Your task to perform on an android device: Search for seafood restaurants on Google Maps Image 0: 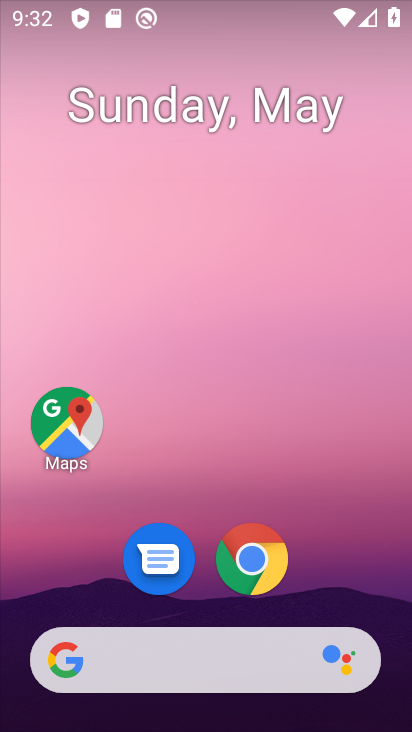
Step 0: click (60, 430)
Your task to perform on an android device: Search for seafood restaurants on Google Maps Image 1: 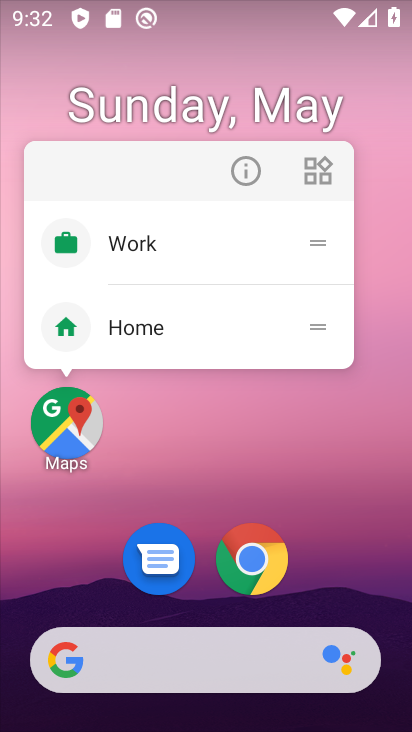
Step 1: drag from (358, 610) to (375, 88)
Your task to perform on an android device: Search for seafood restaurants on Google Maps Image 2: 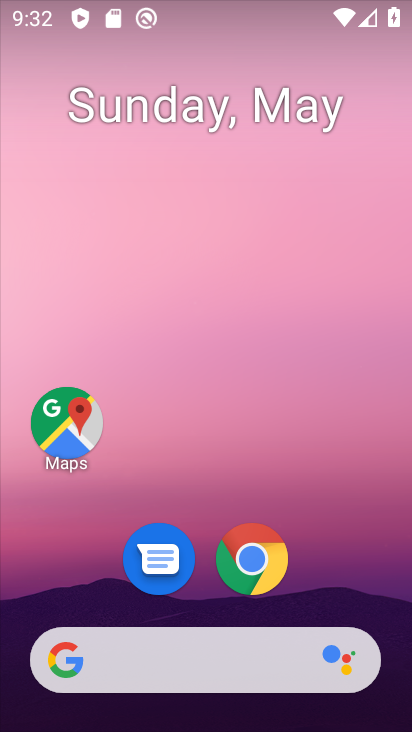
Step 2: drag from (333, 578) to (342, 122)
Your task to perform on an android device: Search for seafood restaurants on Google Maps Image 3: 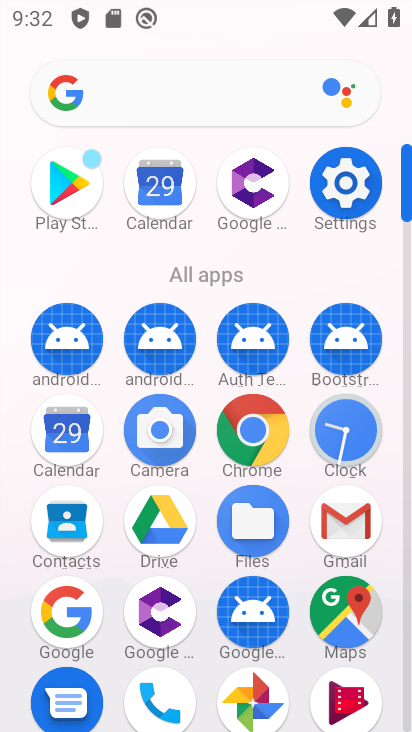
Step 3: click (363, 613)
Your task to perform on an android device: Search for seafood restaurants on Google Maps Image 4: 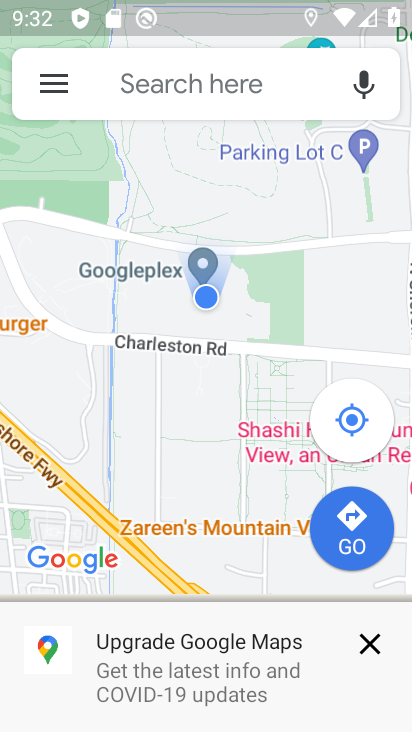
Step 4: click (206, 73)
Your task to perform on an android device: Search for seafood restaurants on Google Maps Image 5: 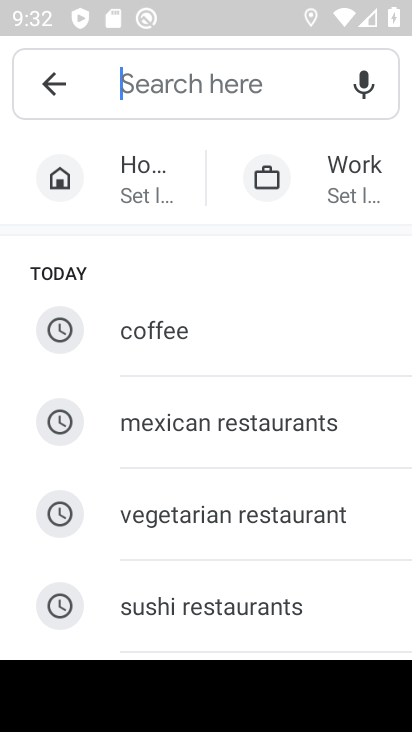
Step 5: type "seafood restaurants"
Your task to perform on an android device: Search for seafood restaurants on Google Maps Image 6: 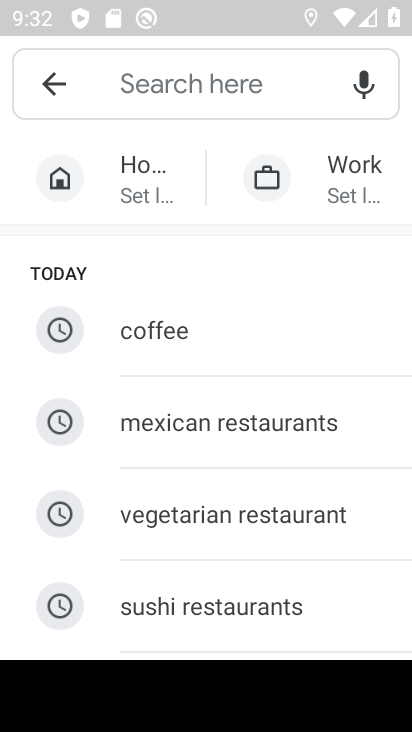
Step 6: click (223, 85)
Your task to perform on an android device: Search for seafood restaurants on Google Maps Image 7: 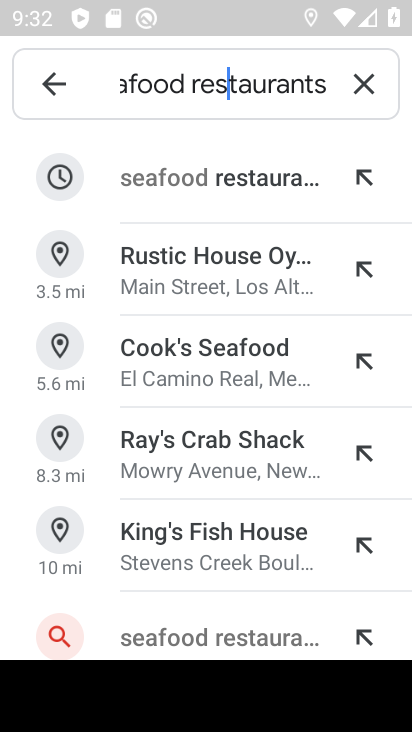
Step 7: click (200, 183)
Your task to perform on an android device: Search for seafood restaurants on Google Maps Image 8: 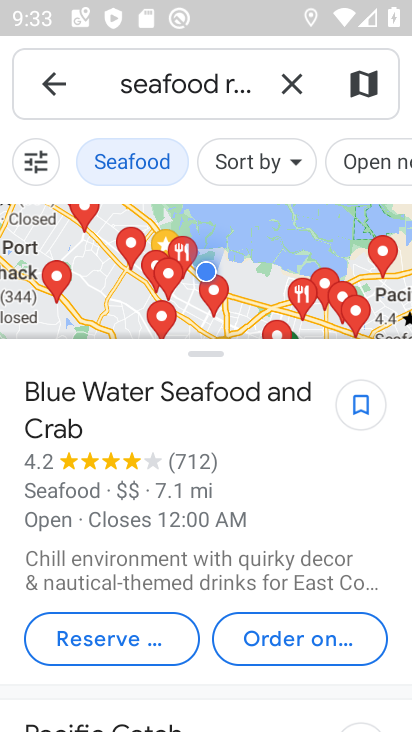
Step 8: task complete